Your task to perform on an android device: Find coffee shops on Maps Image 0: 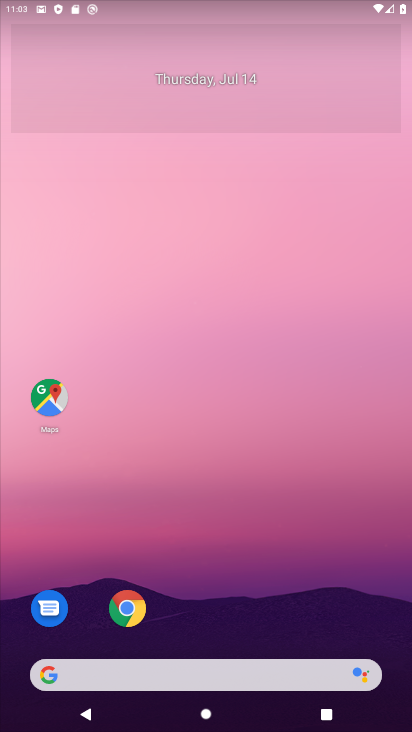
Step 0: drag from (241, 605) to (238, 54)
Your task to perform on an android device: Find coffee shops on Maps Image 1: 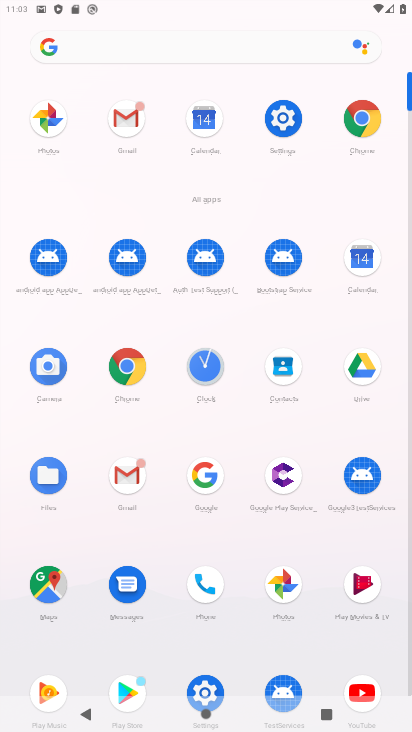
Step 1: click (39, 586)
Your task to perform on an android device: Find coffee shops on Maps Image 2: 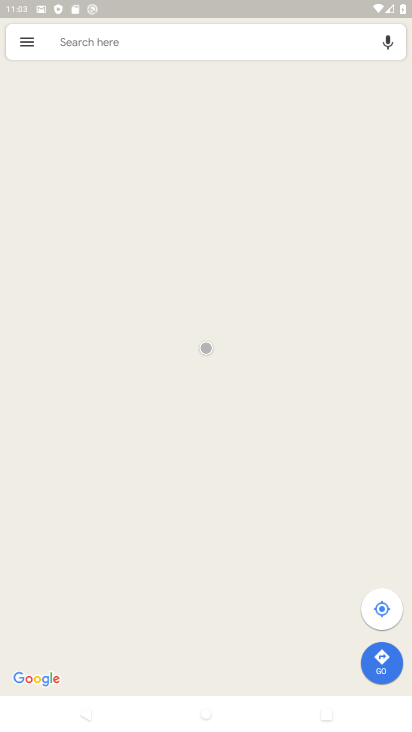
Step 2: click (176, 51)
Your task to perform on an android device: Find coffee shops on Maps Image 3: 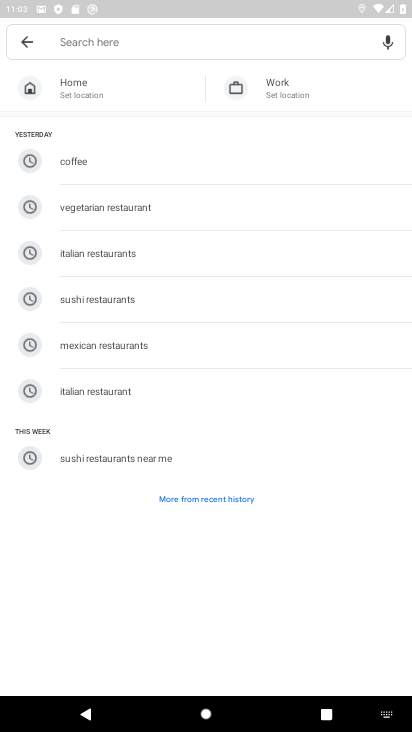
Step 3: click (90, 162)
Your task to perform on an android device: Find coffee shops on Maps Image 4: 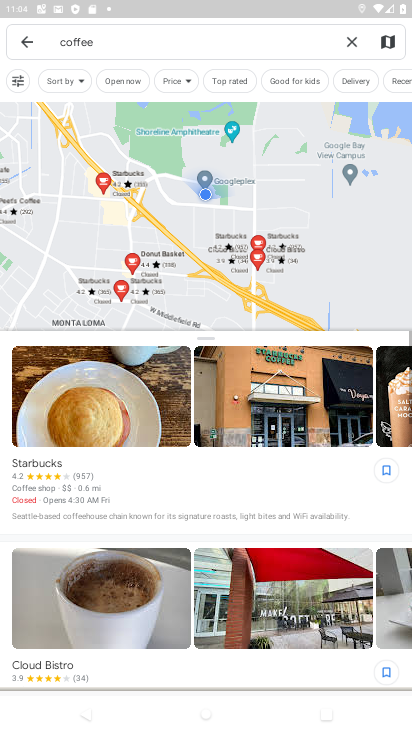
Step 4: task complete